Your task to perform on an android device: stop showing notifications on the lock screen Image 0: 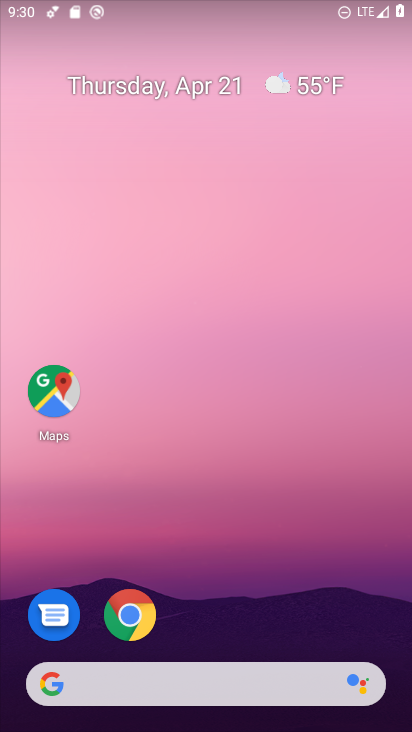
Step 0: drag from (327, 368) to (324, 77)
Your task to perform on an android device: stop showing notifications on the lock screen Image 1: 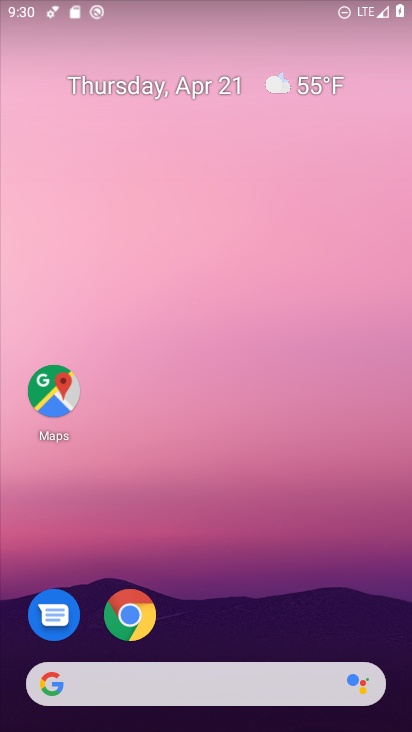
Step 1: drag from (333, 613) to (310, 74)
Your task to perform on an android device: stop showing notifications on the lock screen Image 2: 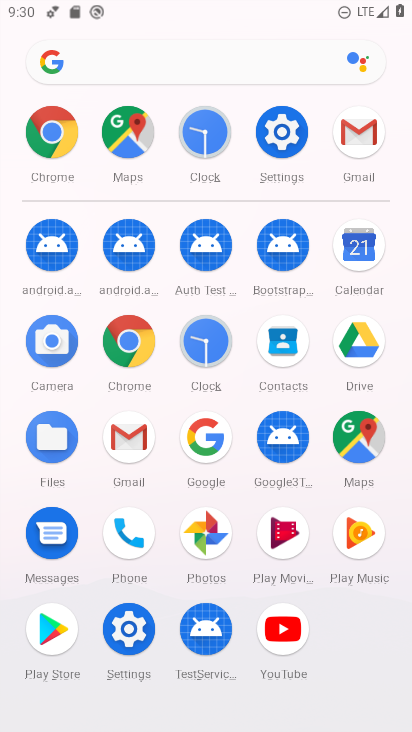
Step 2: click (288, 127)
Your task to perform on an android device: stop showing notifications on the lock screen Image 3: 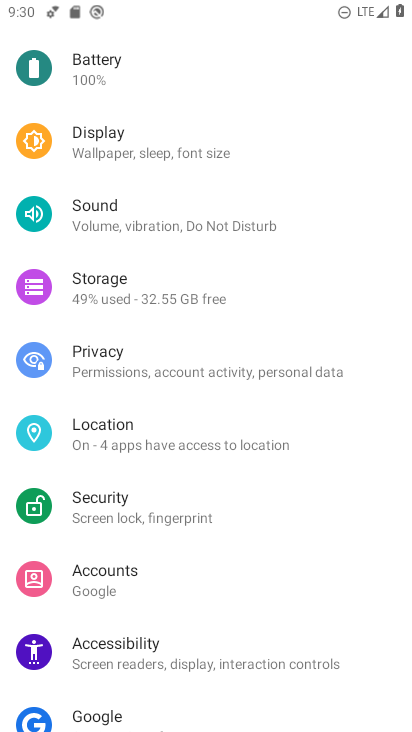
Step 3: drag from (277, 346) to (233, 574)
Your task to perform on an android device: stop showing notifications on the lock screen Image 4: 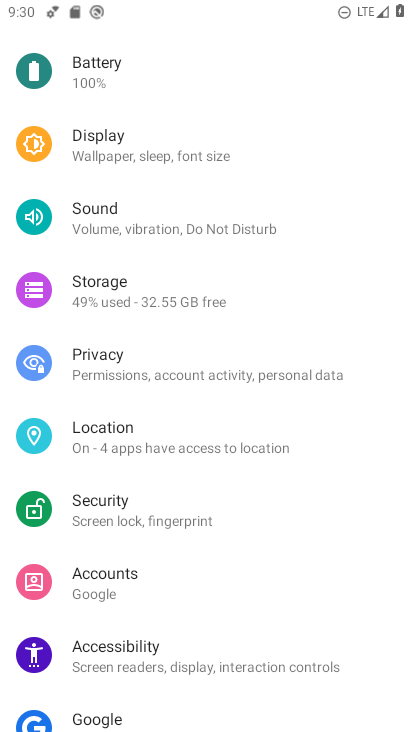
Step 4: drag from (236, 300) to (242, 584)
Your task to perform on an android device: stop showing notifications on the lock screen Image 5: 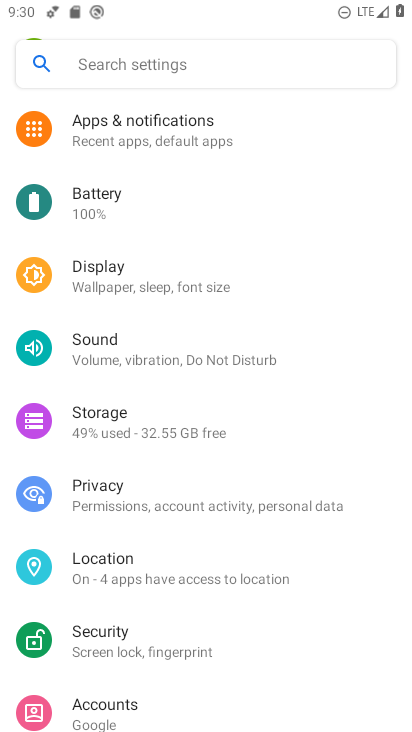
Step 5: drag from (204, 262) to (222, 514)
Your task to perform on an android device: stop showing notifications on the lock screen Image 6: 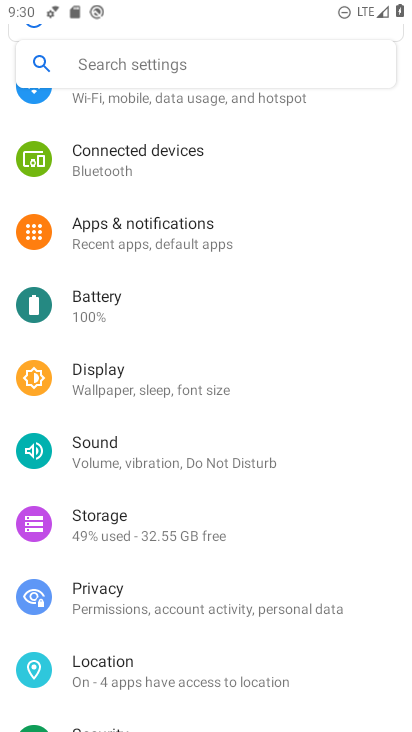
Step 6: click (174, 247)
Your task to perform on an android device: stop showing notifications on the lock screen Image 7: 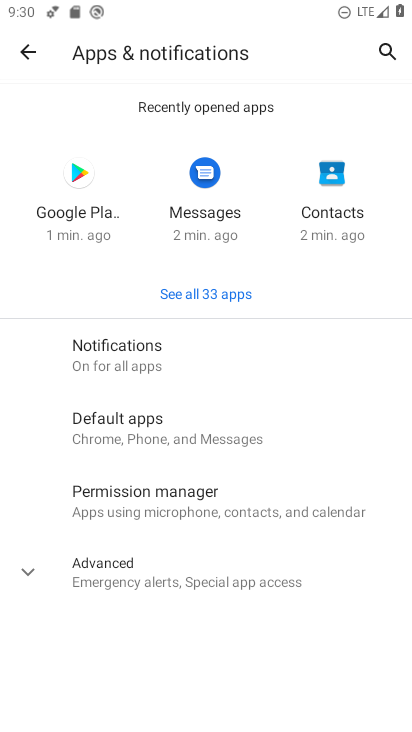
Step 7: click (118, 356)
Your task to perform on an android device: stop showing notifications on the lock screen Image 8: 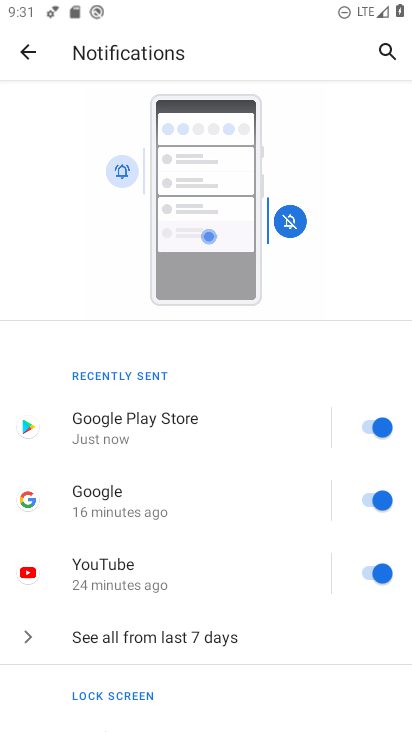
Step 8: drag from (185, 470) to (207, 160)
Your task to perform on an android device: stop showing notifications on the lock screen Image 9: 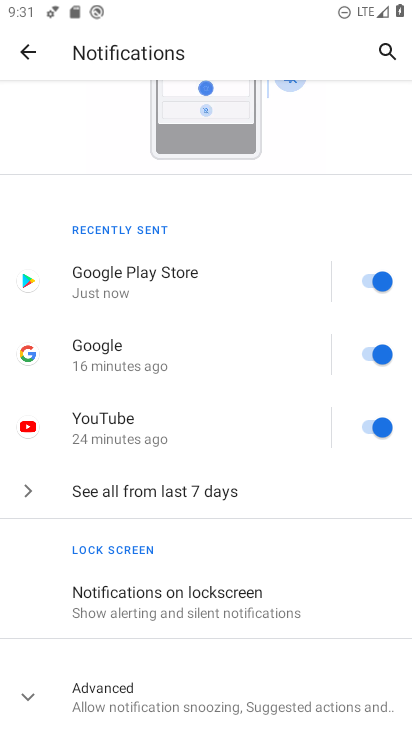
Step 9: drag from (231, 477) to (292, 149)
Your task to perform on an android device: stop showing notifications on the lock screen Image 10: 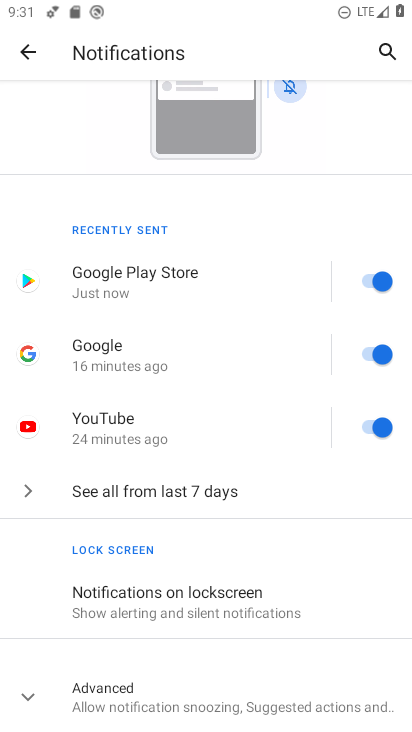
Step 10: click (206, 600)
Your task to perform on an android device: stop showing notifications on the lock screen Image 11: 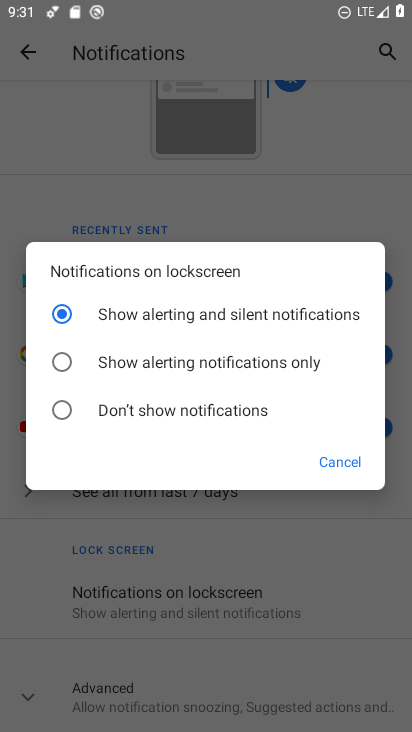
Step 11: click (70, 409)
Your task to perform on an android device: stop showing notifications on the lock screen Image 12: 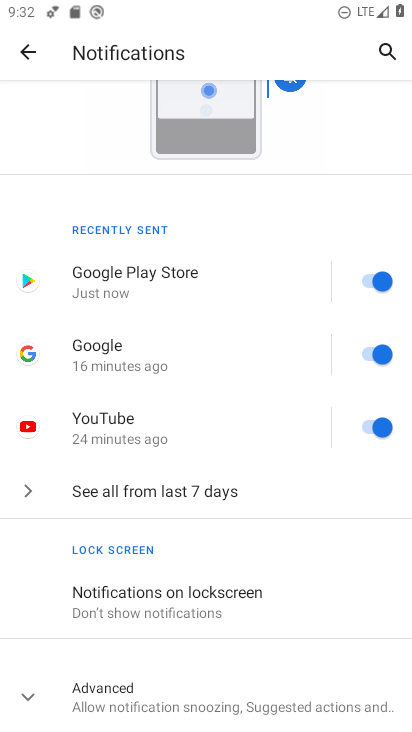
Step 12: task complete